Your task to perform on an android device: Do I have any events tomorrow? Image 0: 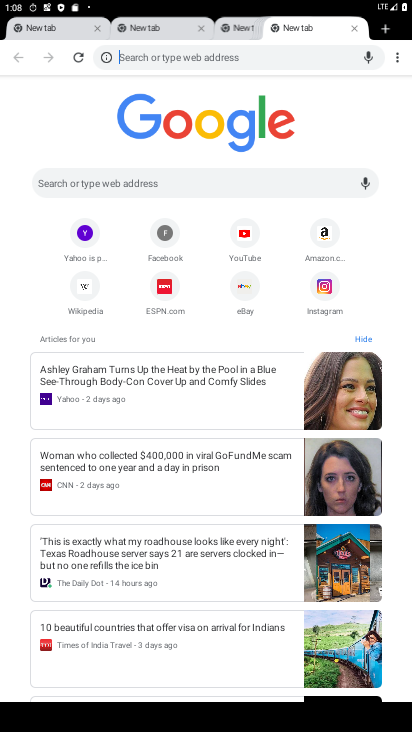
Step 0: click (214, 211)
Your task to perform on an android device: Do I have any events tomorrow? Image 1: 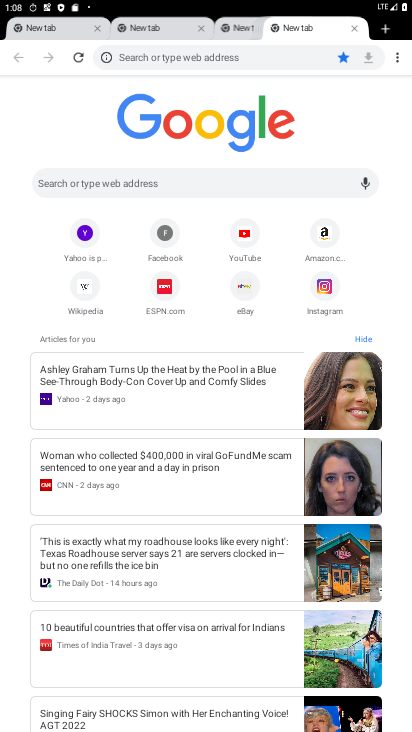
Step 1: press home button
Your task to perform on an android device: Do I have any events tomorrow? Image 2: 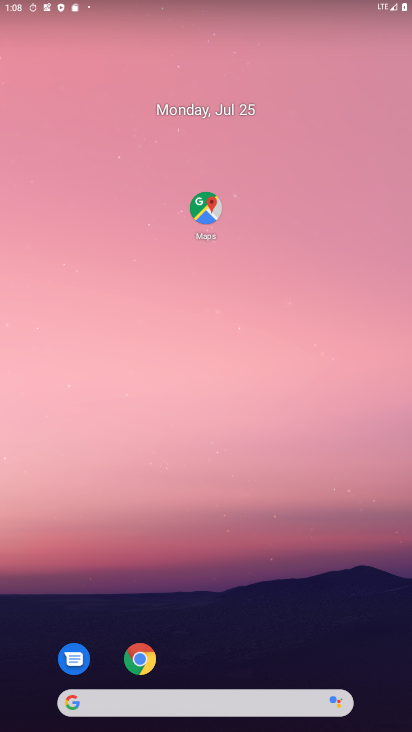
Step 2: drag from (366, 169) to (407, 43)
Your task to perform on an android device: Do I have any events tomorrow? Image 3: 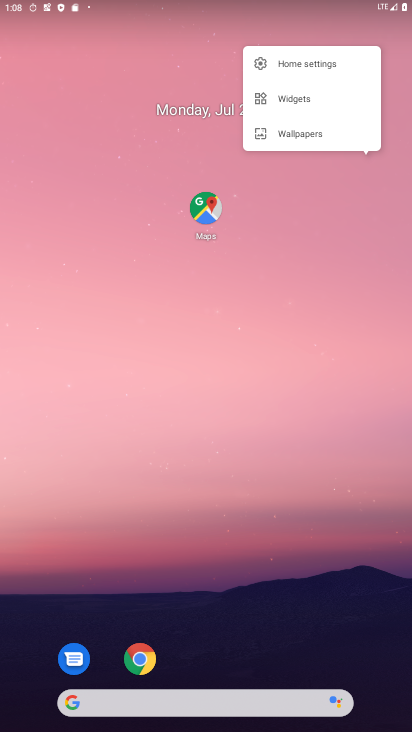
Step 3: click (352, 2)
Your task to perform on an android device: Do I have any events tomorrow? Image 4: 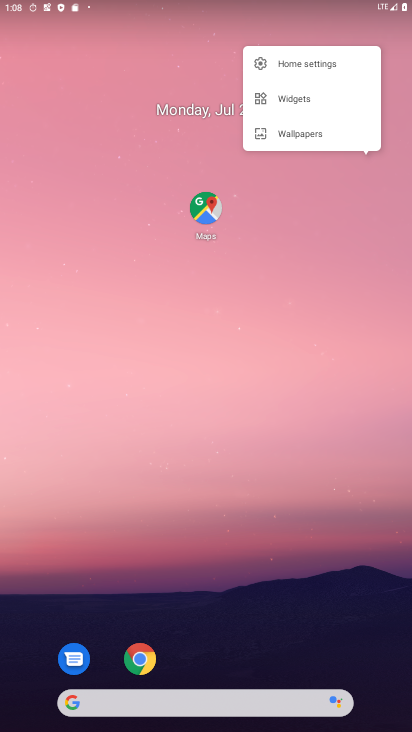
Step 4: drag from (25, 707) to (286, 48)
Your task to perform on an android device: Do I have any events tomorrow? Image 5: 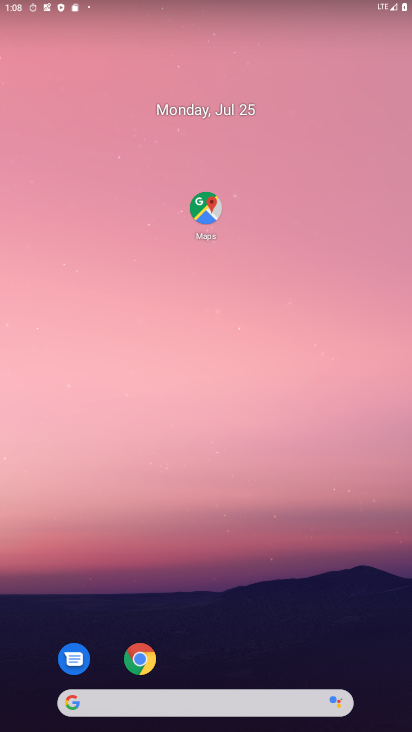
Step 5: drag from (121, 535) to (271, 145)
Your task to perform on an android device: Do I have any events tomorrow? Image 6: 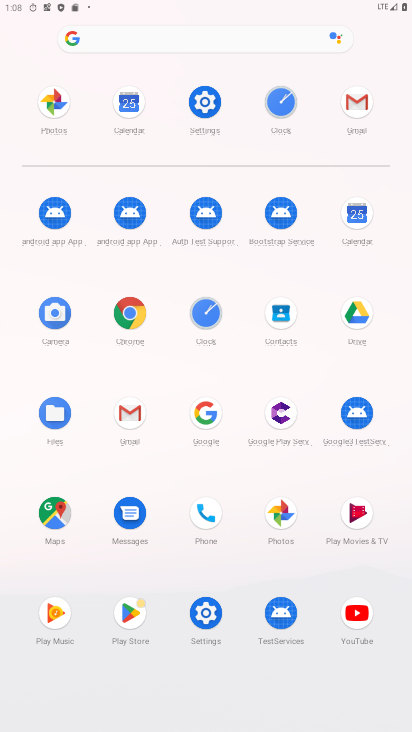
Step 6: click (364, 214)
Your task to perform on an android device: Do I have any events tomorrow? Image 7: 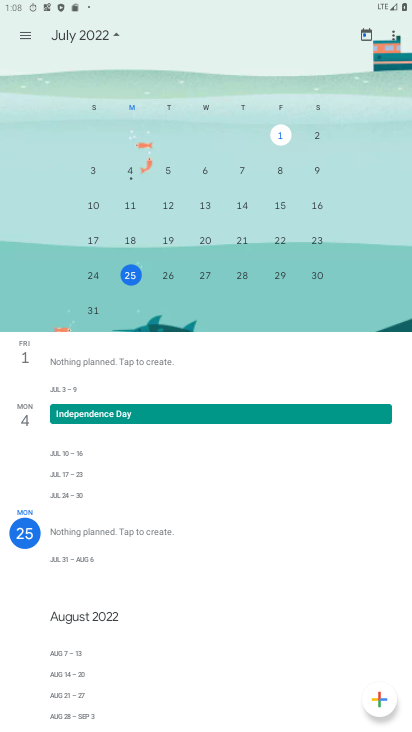
Step 7: task complete